Your task to perform on an android device: Clear the shopping cart on newegg. Image 0: 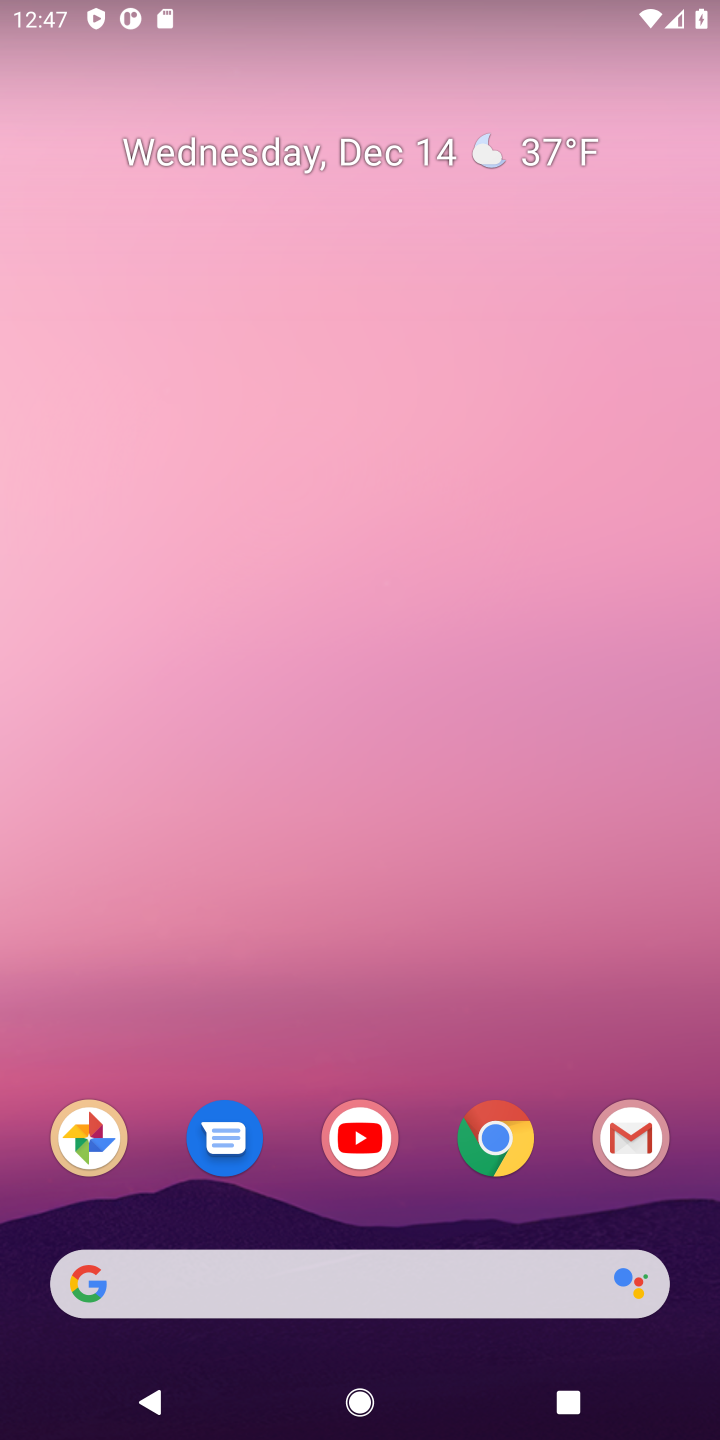
Step 0: click (486, 1148)
Your task to perform on an android device: Clear the shopping cart on newegg. Image 1: 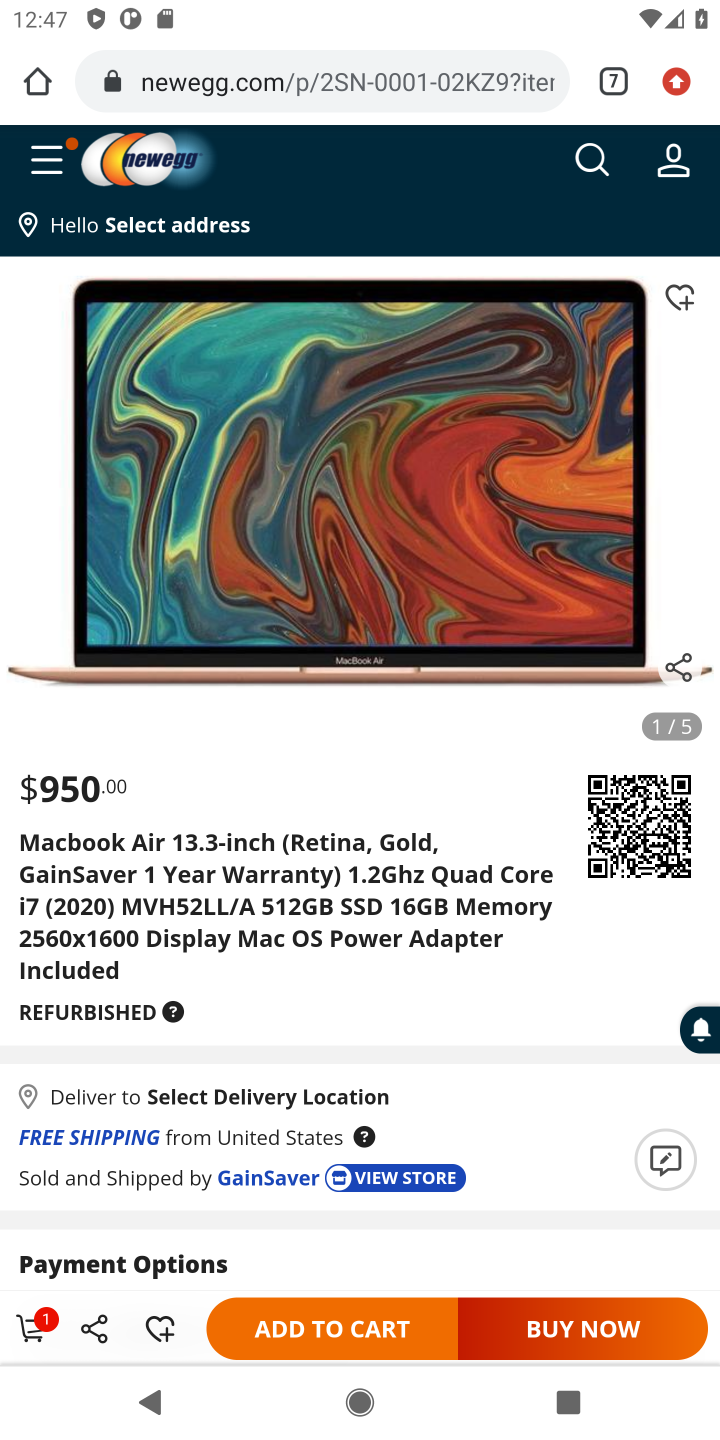
Step 1: click (27, 1328)
Your task to perform on an android device: Clear the shopping cart on newegg. Image 2: 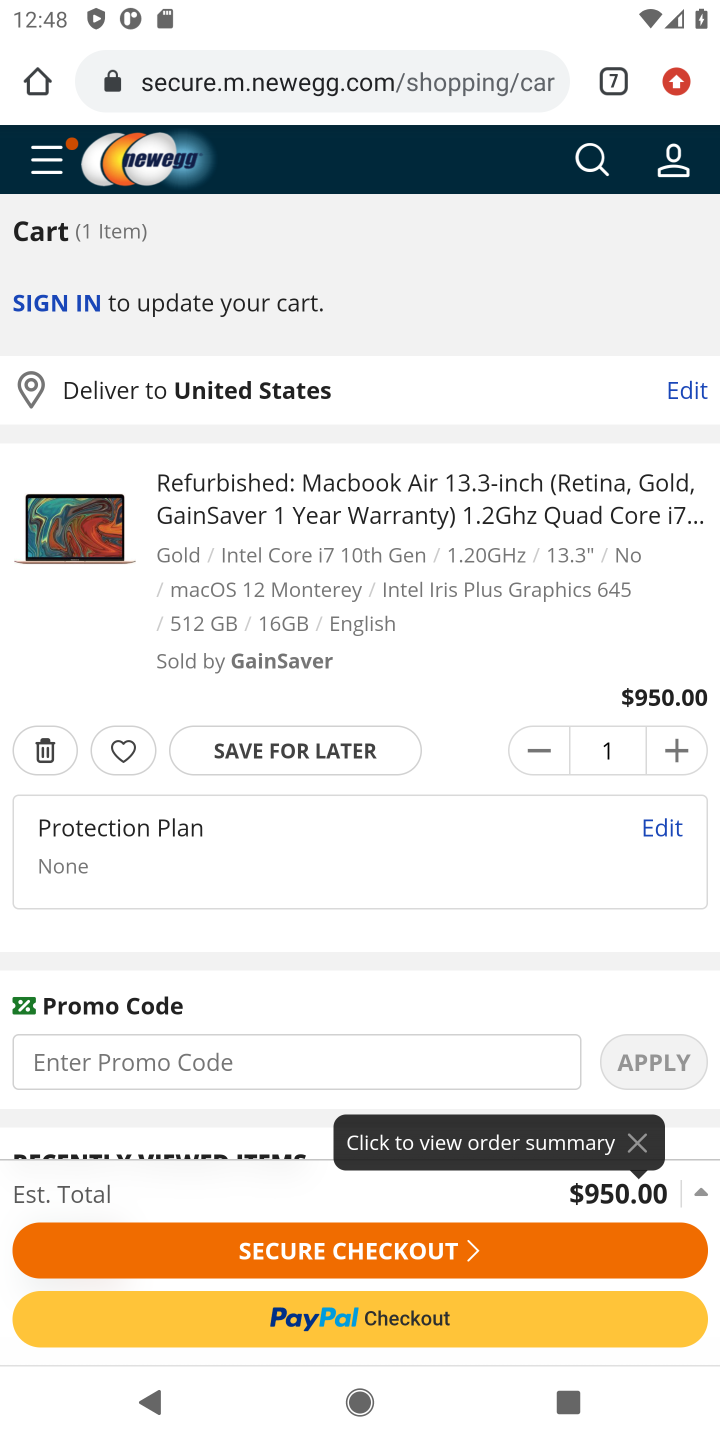
Step 2: click (43, 758)
Your task to perform on an android device: Clear the shopping cart on newegg. Image 3: 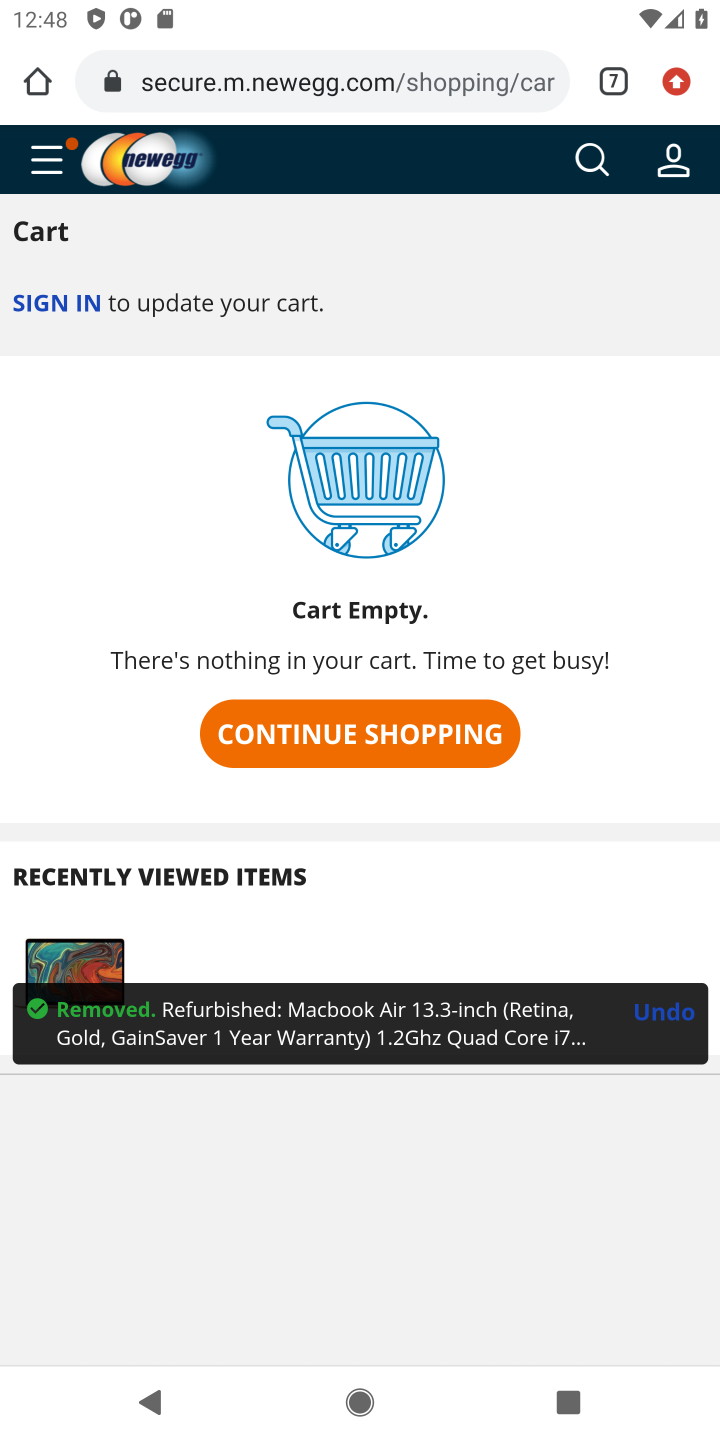
Step 3: task complete